Your task to perform on an android device: all mails in gmail Image 0: 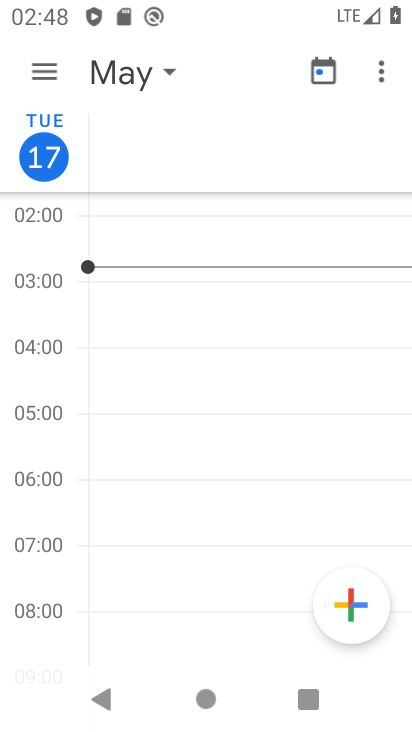
Step 0: press home button
Your task to perform on an android device: all mails in gmail Image 1: 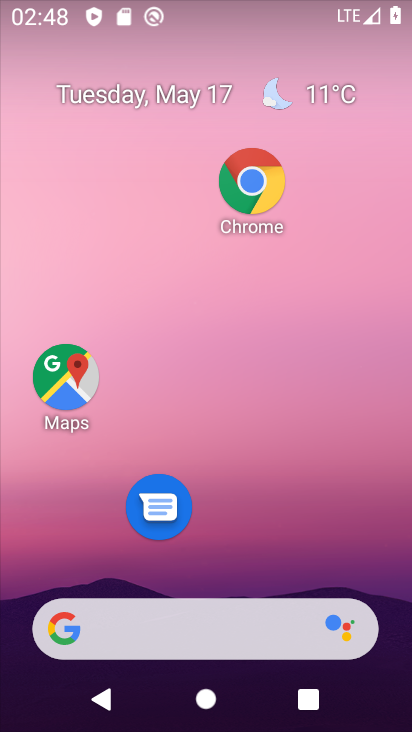
Step 1: drag from (165, 545) to (225, 121)
Your task to perform on an android device: all mails in gmail Image 2: 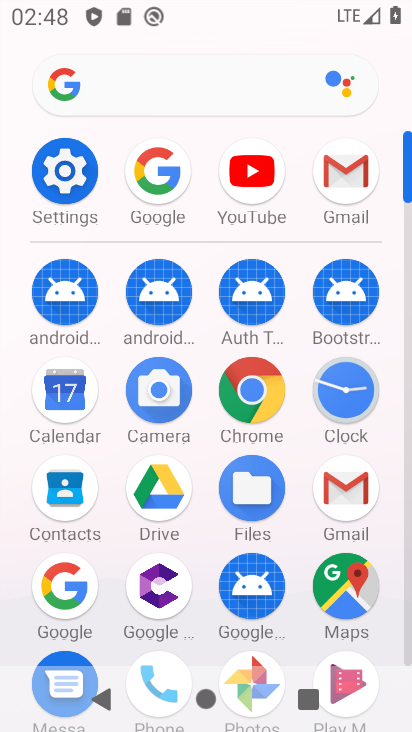
Step 2: click (325, 198)
Your task to perform on an android device: all mails in gmail Image 3: 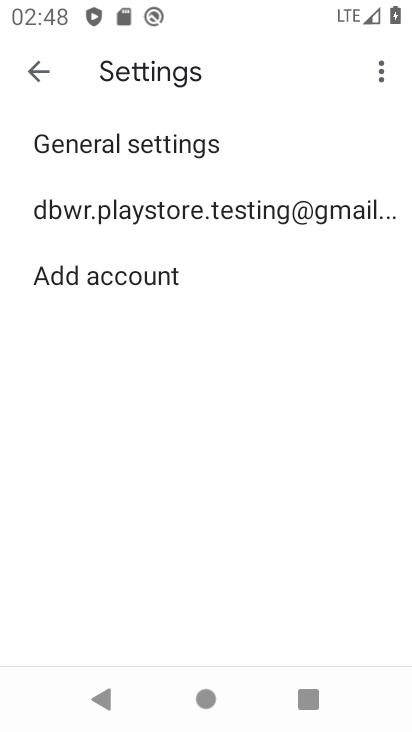
Step 3: click (46, 60)
Your task to perform on an android device: all mails in gmail Image 4: 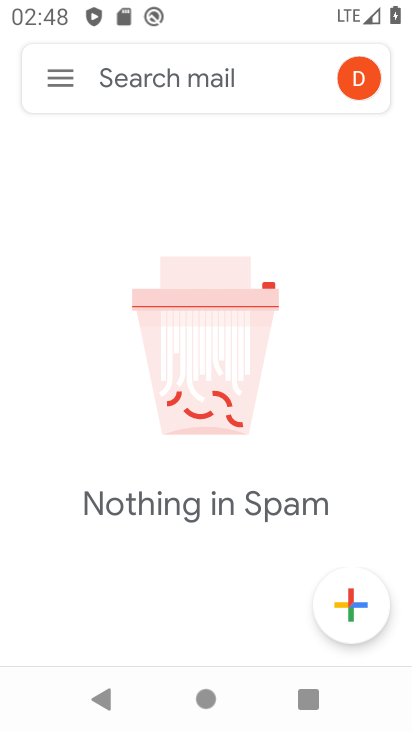
Step 4: click (54, 79)
Your task to perform on an android device: all mails in gmail Image 5: 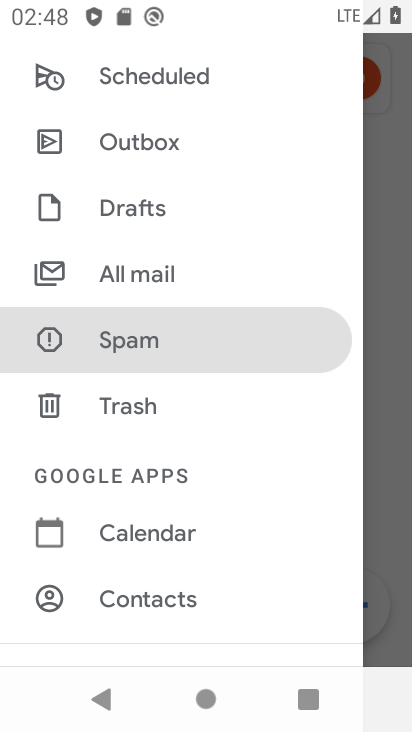
Step 5: click (209, 277)
Your task to perform on an android device: all mails in gmail Image 6: 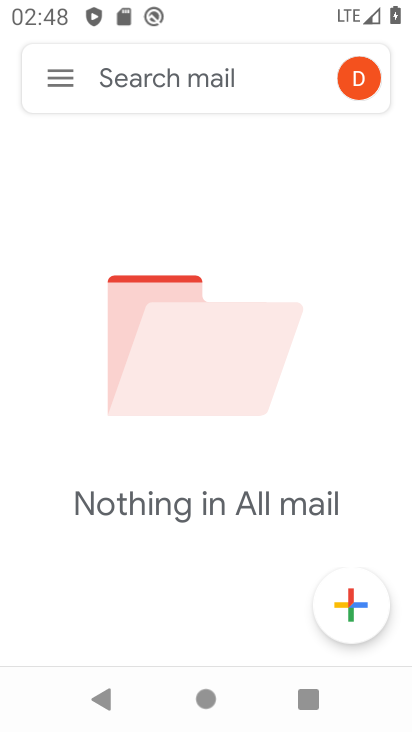
Step 6: task complete